Your task to perform on an android device: What's on my calendar today? Image 0: 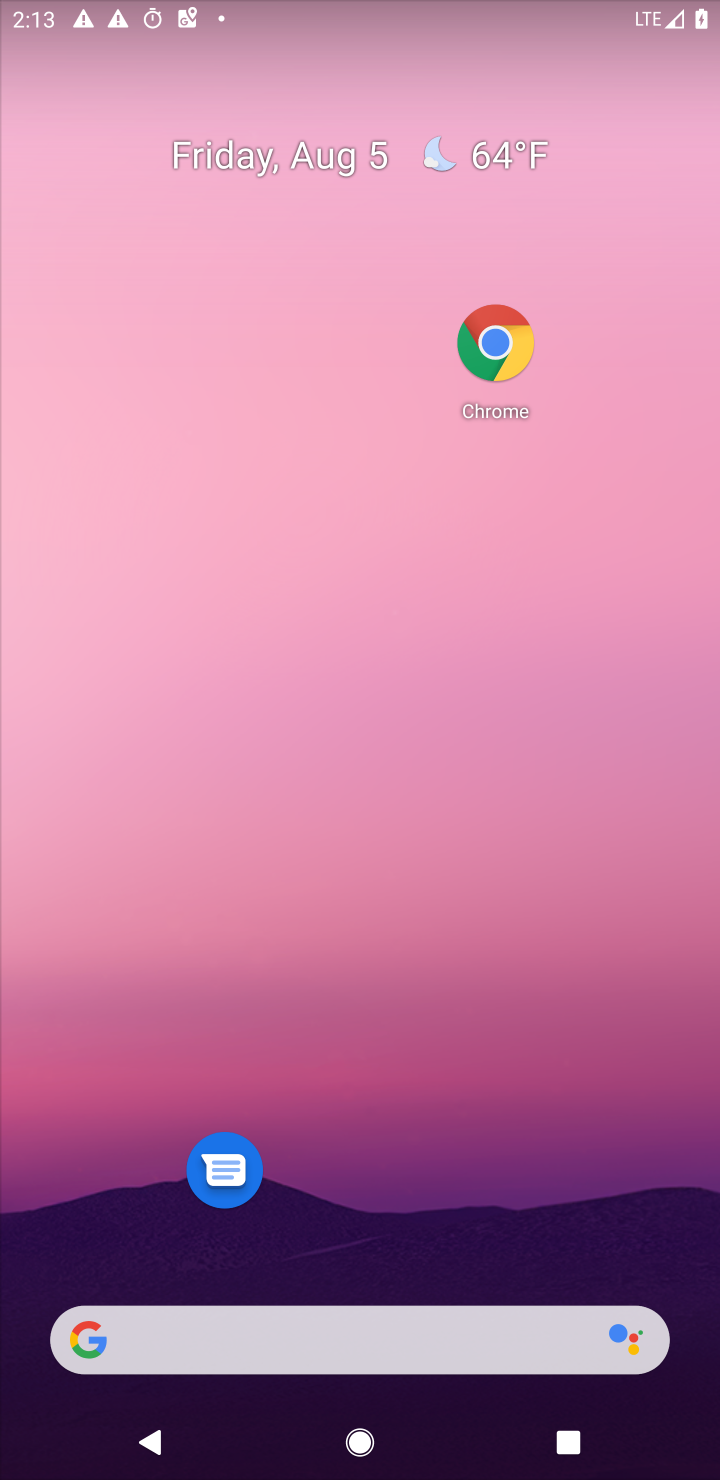
Step 0: drag from (404, 847) to (368, 235)
Your task to perform on an android device: What's on my calendar today? Image 1: 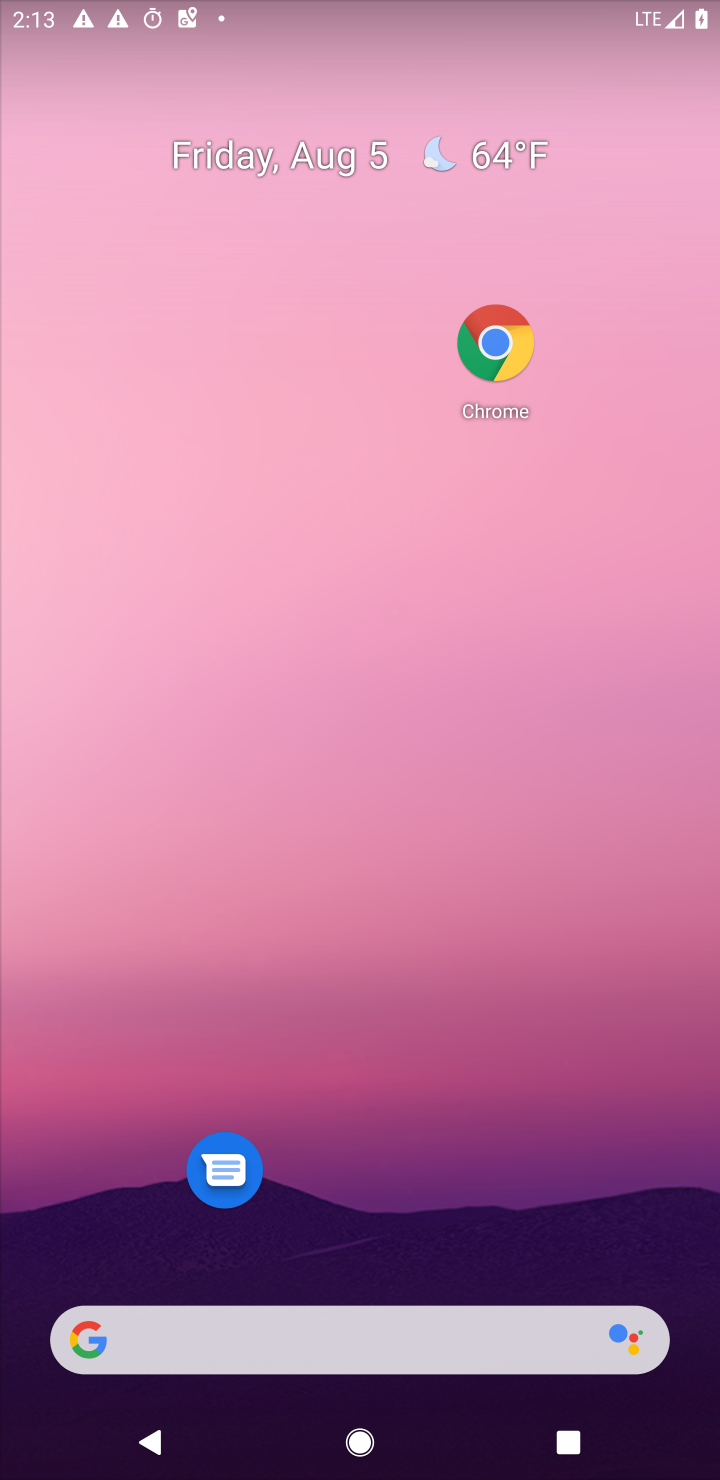
Step 1: drag from (364, 725) to (307, 107)
Your task to perform on an android device: What's on my calendar today? Image 2: 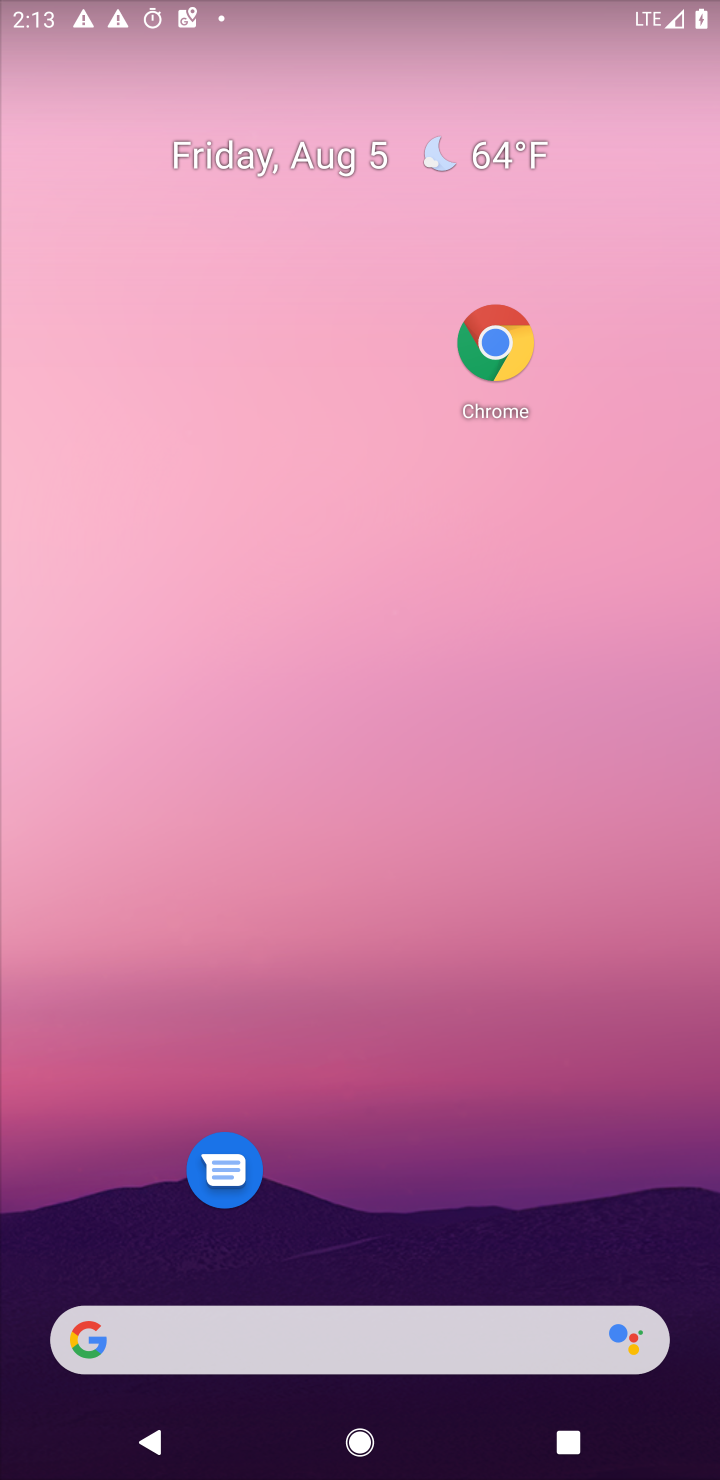
Step 2: drag from (344, 1045) to (275, 8)
Your task to perform on an android device: What's on my calendar today? Image 3: 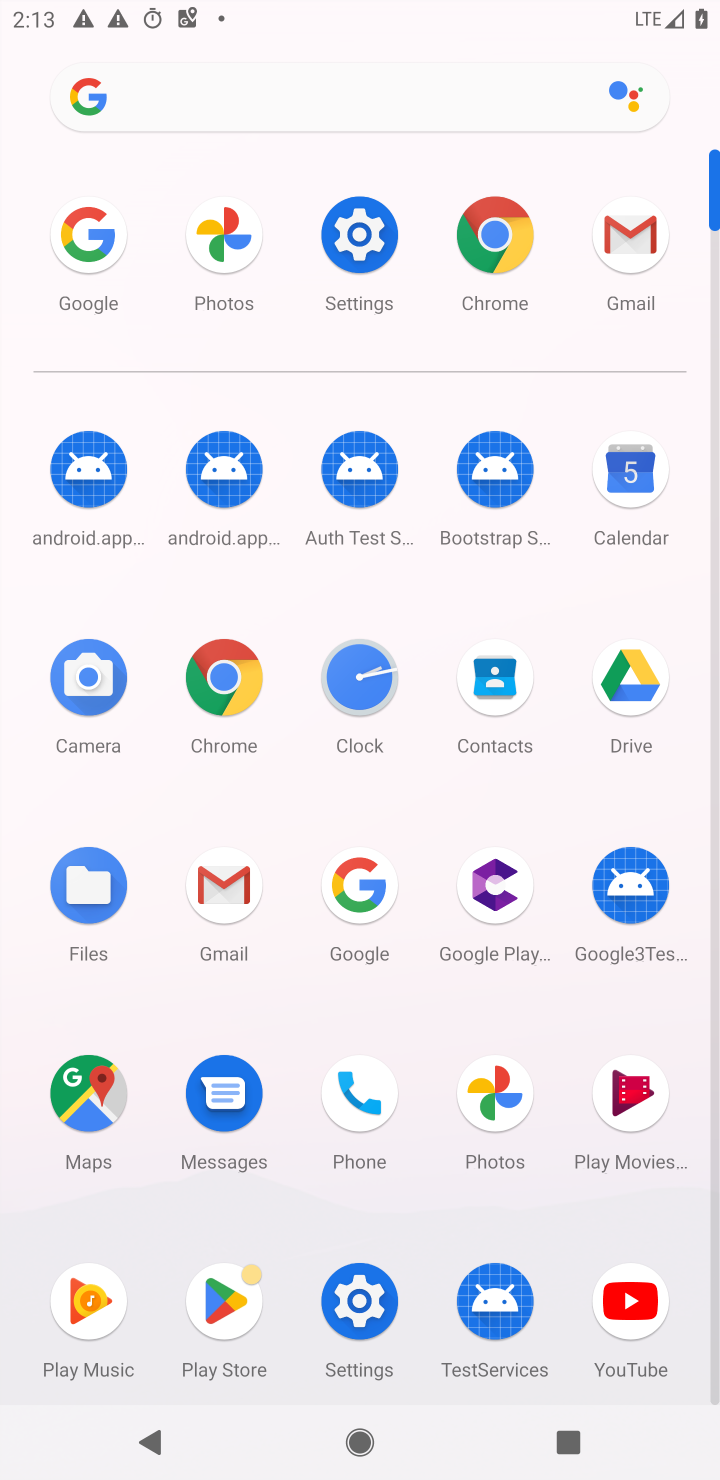
Step 3: click (637, 487)
Your task to perform on an android device: What's on my calendar today? Image 4: 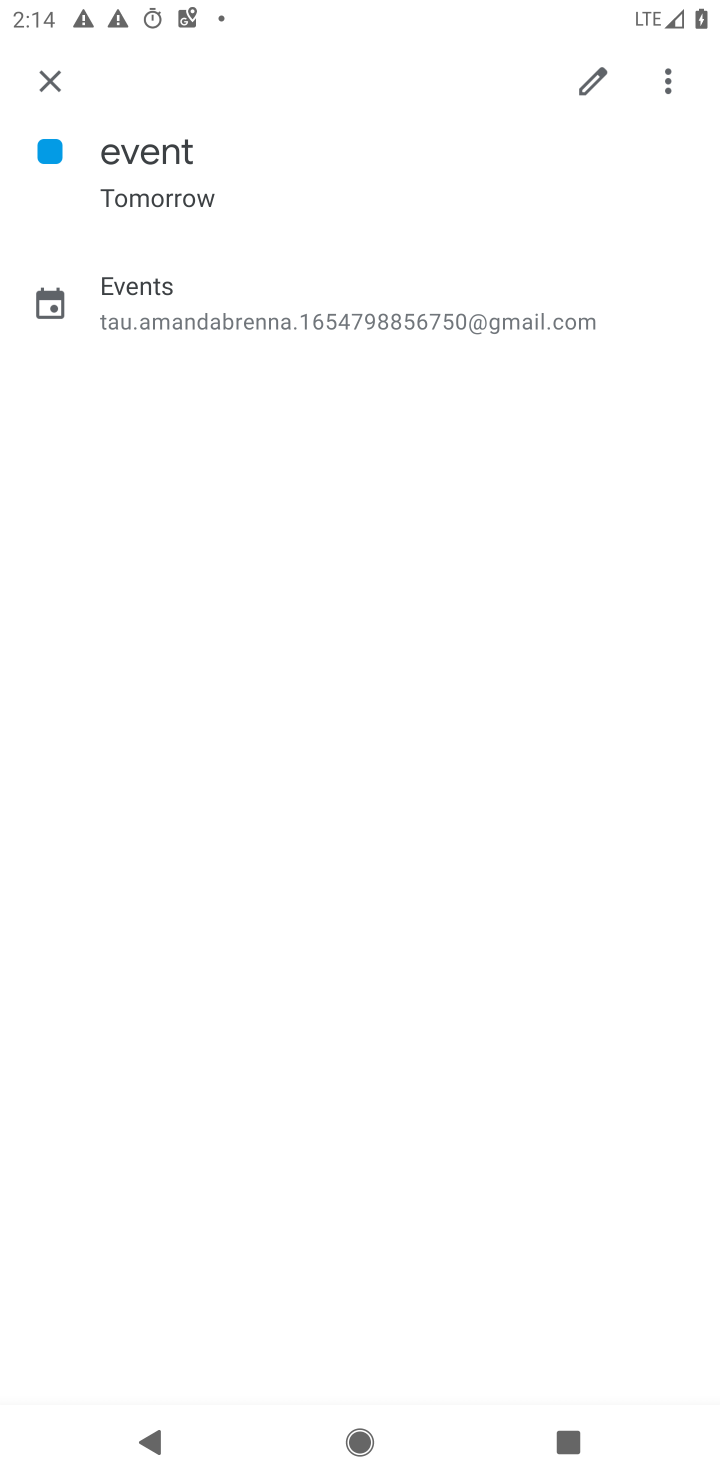
Step 4: task complete